Your task to perform on an android device: add a contact in the contacts app Image 0: 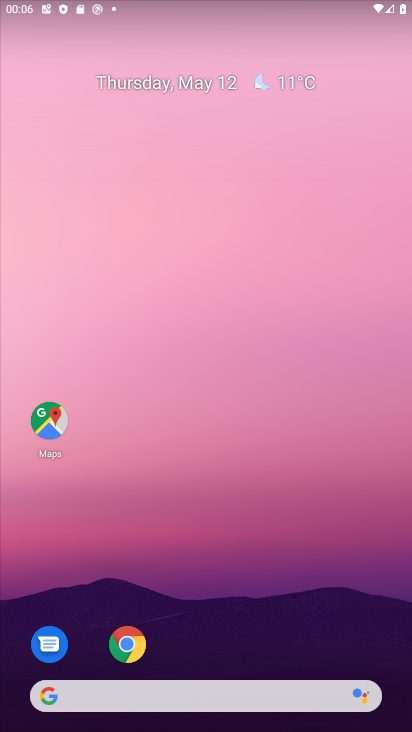
Step 0: drag from (229, 667) to (229, 27)
Your task to perform on an android device: add a contact in the contacts app Image 1: 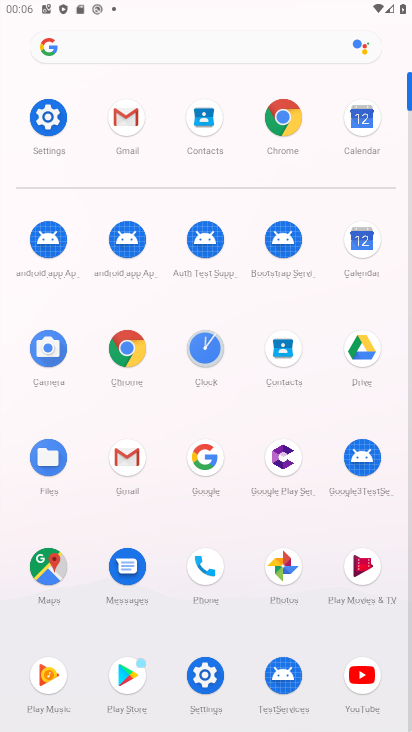
Step 1: click (205, 111)
Your task to perform on an android device: add a contact in the contacts app Image 2: 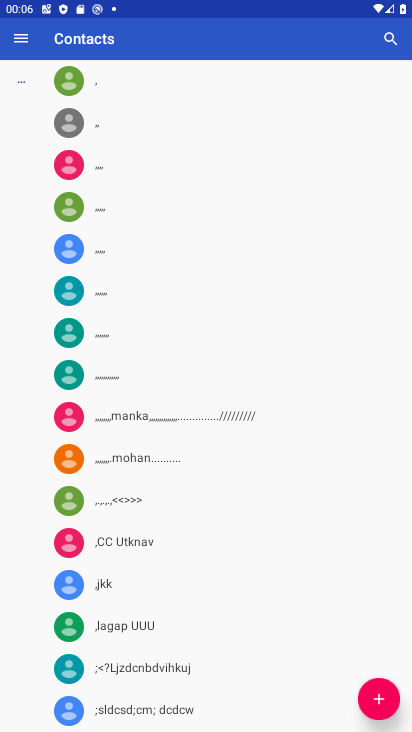
Step 2: click (377, 701)
Your task to perform on an android device: add a contact in the contacts app Image 3: 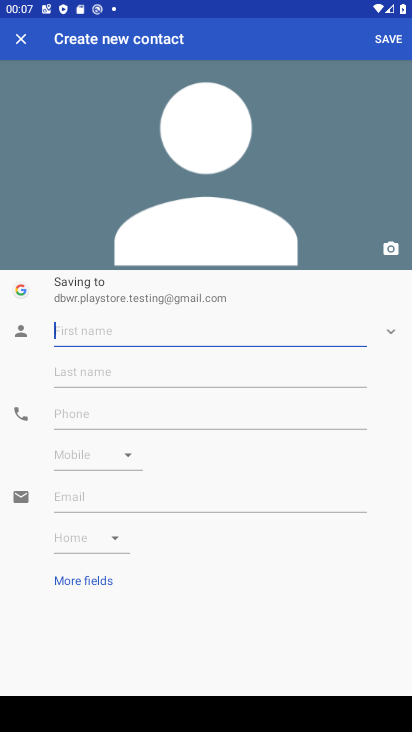
Step 3: type "jhffth"
Your task to perform on an android device: add a contact in the contacts app Image 4: 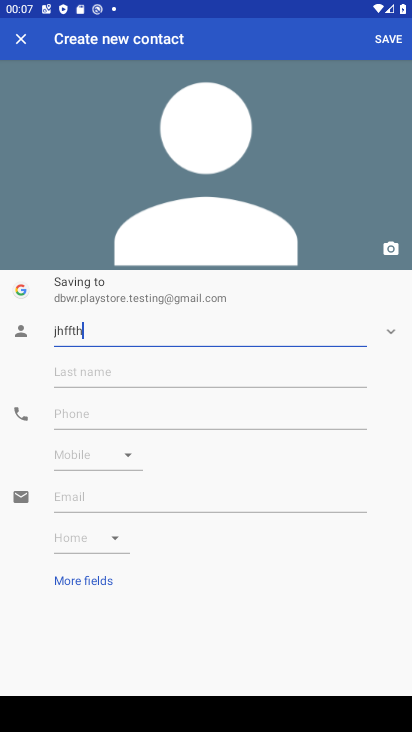
Step 4: type ""
Your task to perform on an android device: add a contact in the contacts app Image 5: 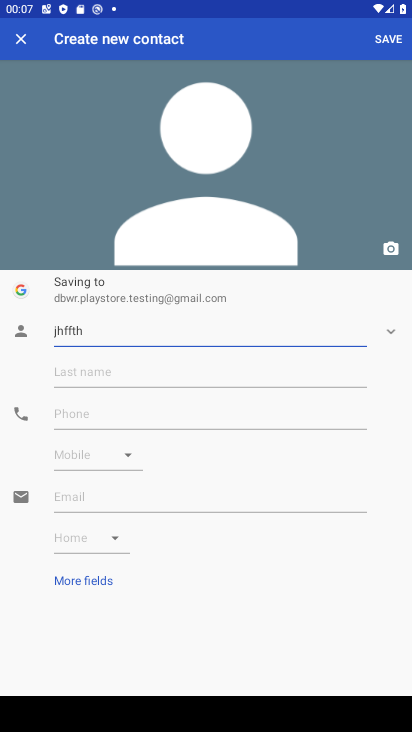
Step 5: click (392, 37)
Your task to perform on an android device: add a contact in the contacts app Image 6: 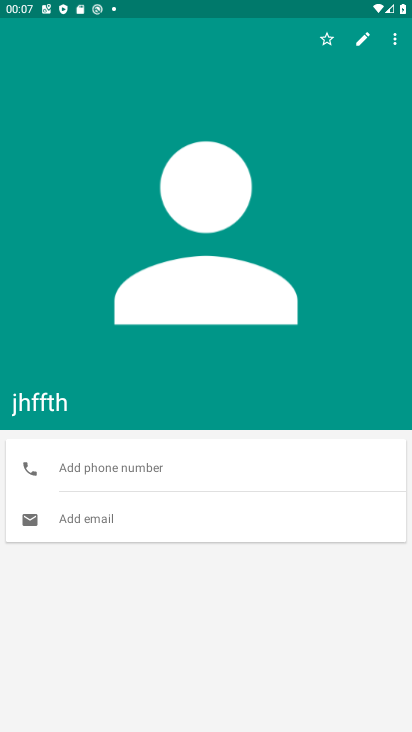
Step 6: task complete